Your task to perform on an android device: move a message to another label in the gmail app Image 0: 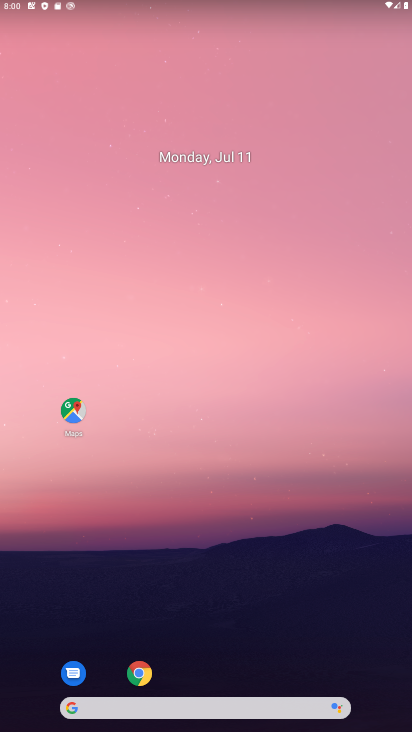
Step 0: drag from (224, 406) to (214, 121)
Your task to perform on an android device: move a message to another label in the gmail app Image 1: 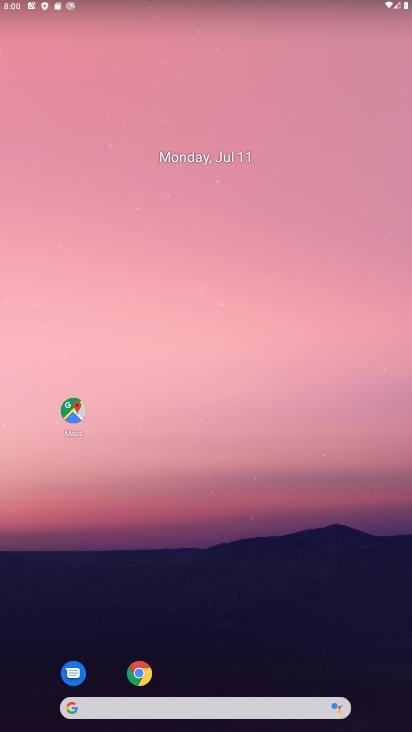
Step 1: drag from (230, 664) to (214, 49)
Your task to perform on an android device: move a message to another label in the gmail app Image 2: 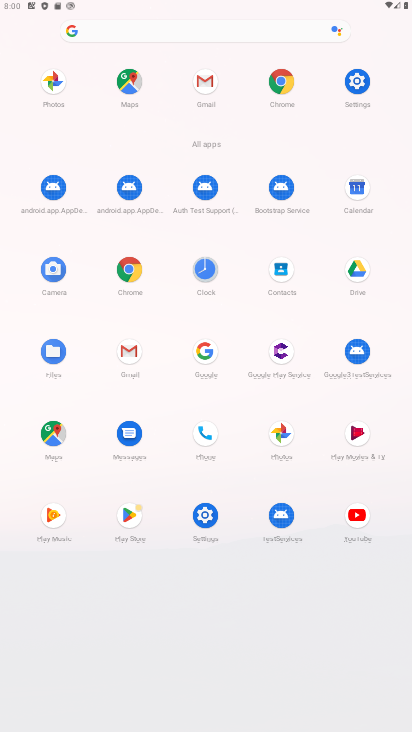
Step 2: click (126, 343)
Your task to perform on an android device: move a message to another label in the gmail app Image 3: 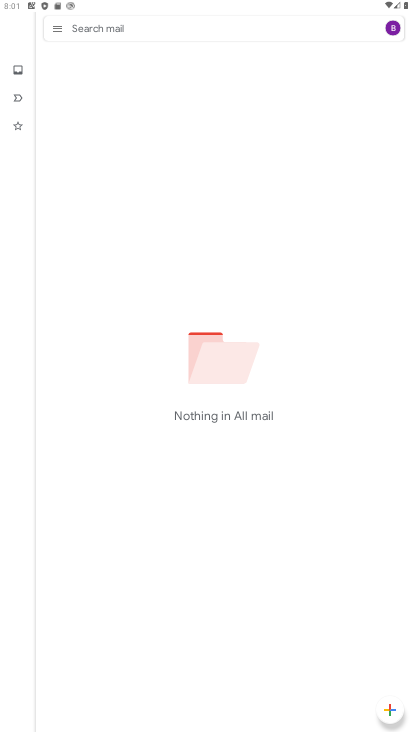
Step 3: task complete